Your task to perform on an android device: toggle location history Image 0: 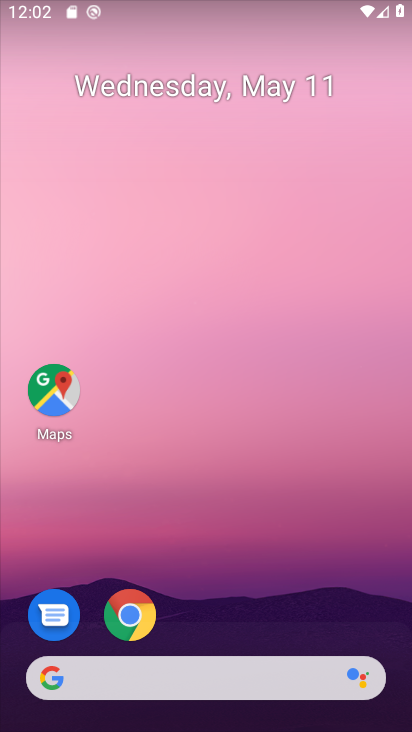
Step 0: drag from (205, 669) to (201, 47)
Your task to perform on an android device: toggle location history Image 1: 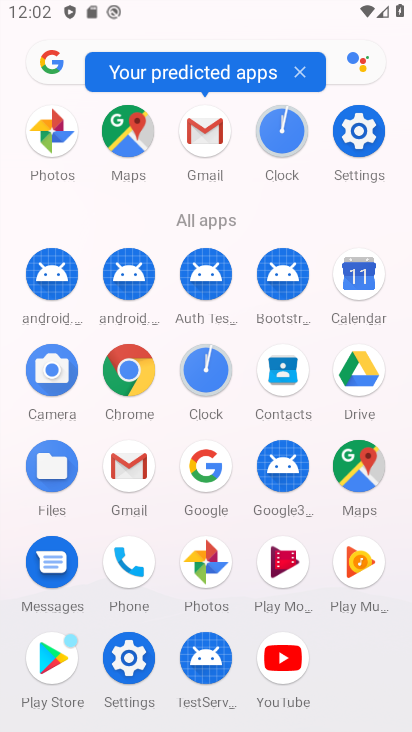
Step 1: click (367, 136)
Your task to perform on an android device: toggle location history Image 2: 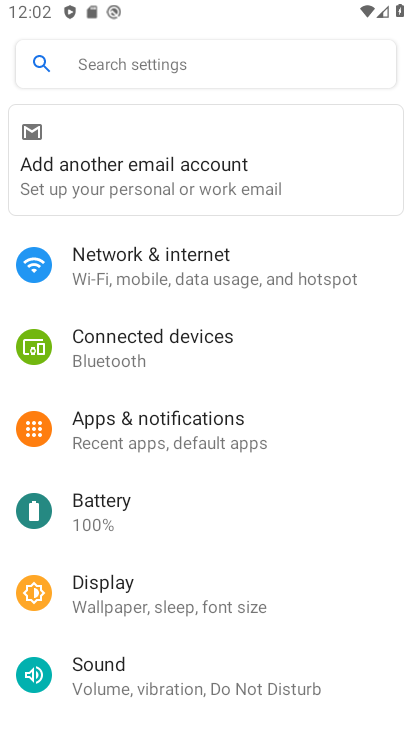
Step 2: drag from (92, 603) to (177, 126)
Your task to perform on an android device: toggle location history Image 3: 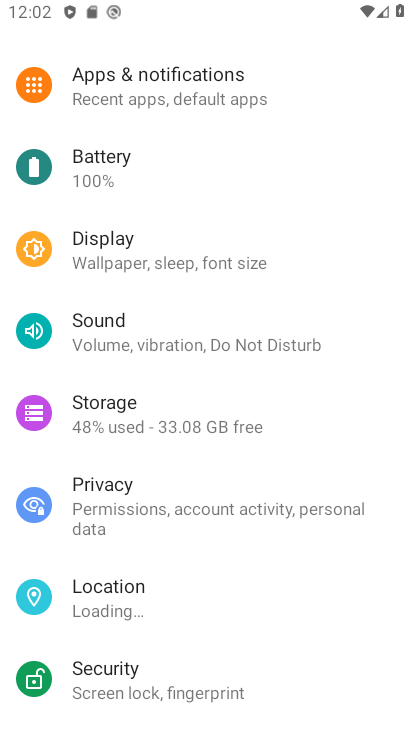
Step 3: click (81, 582)
Your task to perform on an android device: toggle location history Image 4: 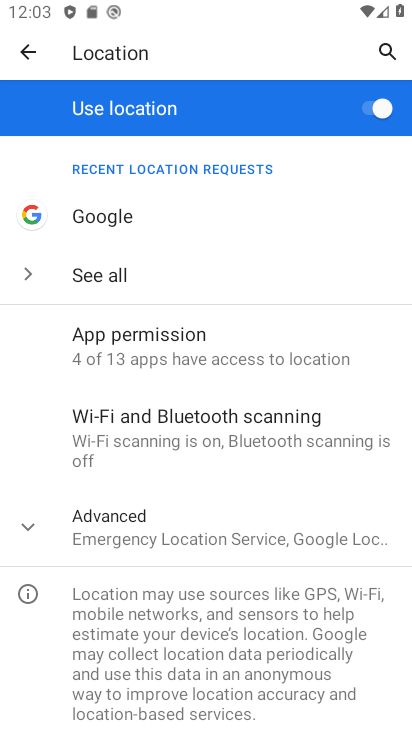
Step 4: drag from (216, 579) to (250, 228)
Your task to perform on an android device: toggle location history Image 5: 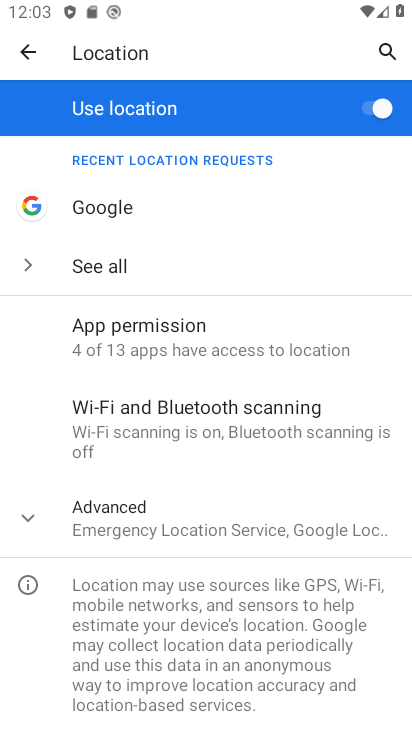
Step 5: click (120, 529)
Your task to perform on an android device: toggle location history Image 6: 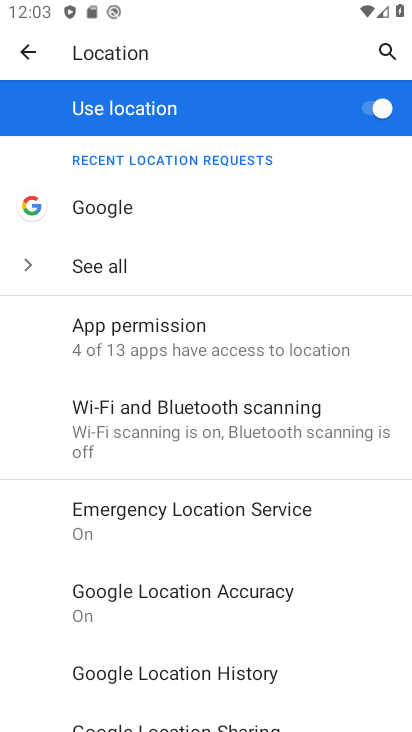
Step 6: click (202, 669)
Your task to perform on an android device: toggle location history Image 7: 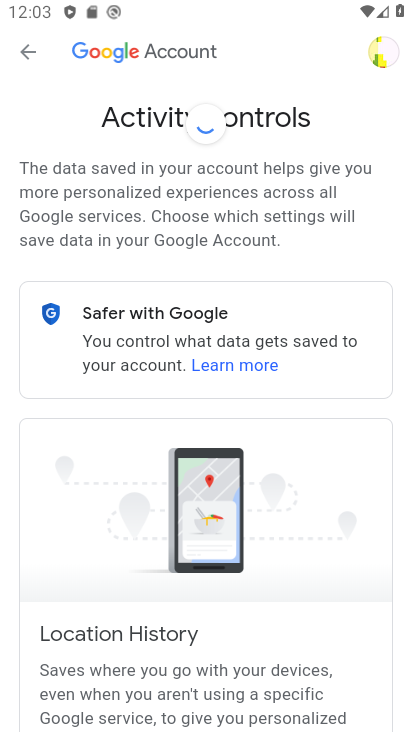
Step 7: drag from (210, 618) to (261, 128)
Your task to perform on an android device: toggle location history Image 8: 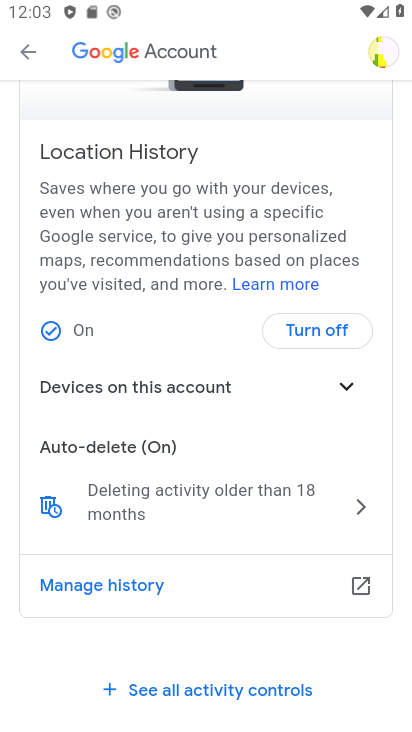
Step 8: click (305, 324)
Your task to perform on an android device: toggle location history Image 9: 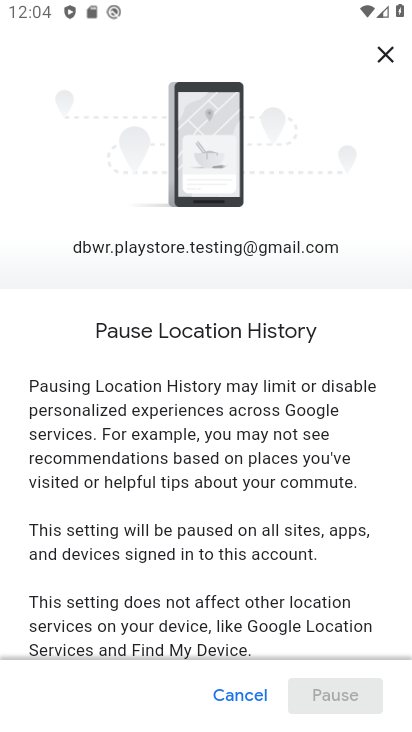
Step 9: drag from (179, 610) to (306, 78)
Your task to perform on an android device: toggle location history Image 10: 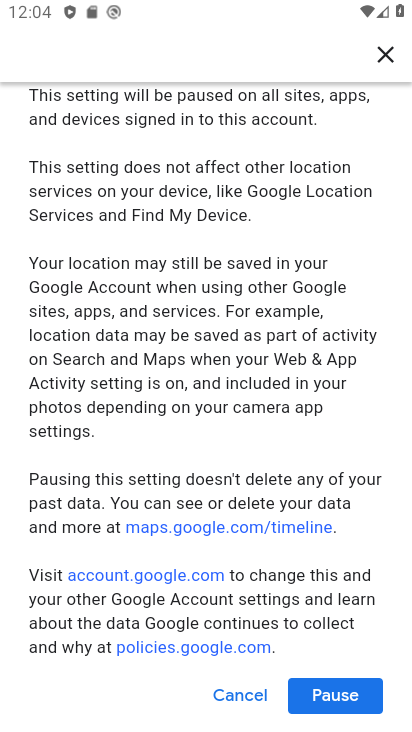
Step 10: click (328, 701)
Your task to perform on an android device: toggle location history Image 11: 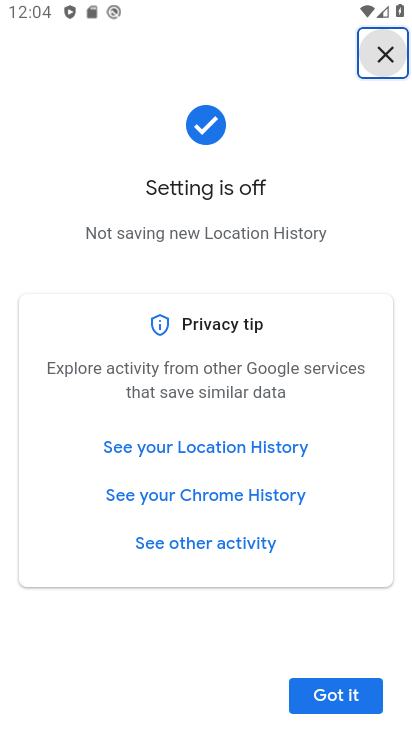
Step 11: click (315, 699)
Your task to perform on an android device: toggle location history Image 12: 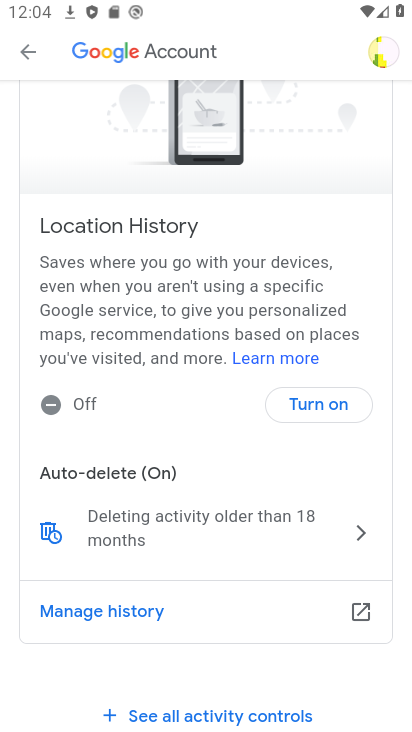
Step 12: task complete